Your task to perform on an android device: Search for "razer thresher" on amazon.com, select the first entry, and add it to the cart. Image 0: 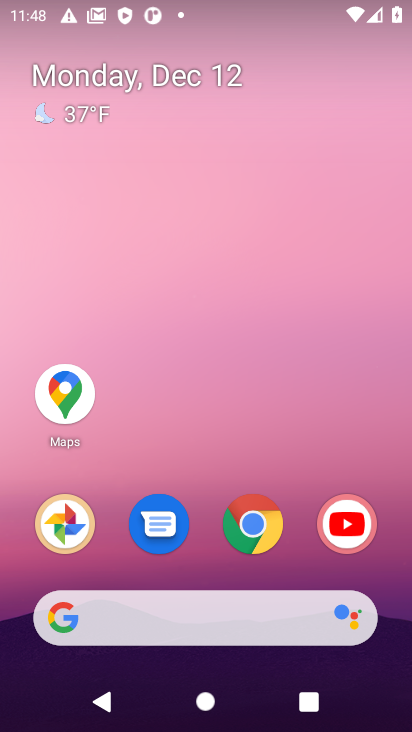
Step 0: click (244, 531)
Your task to perform on an android device: Search for "razer thresher" on amazon.com, select the first entry, and add it to the cart. Image 1: 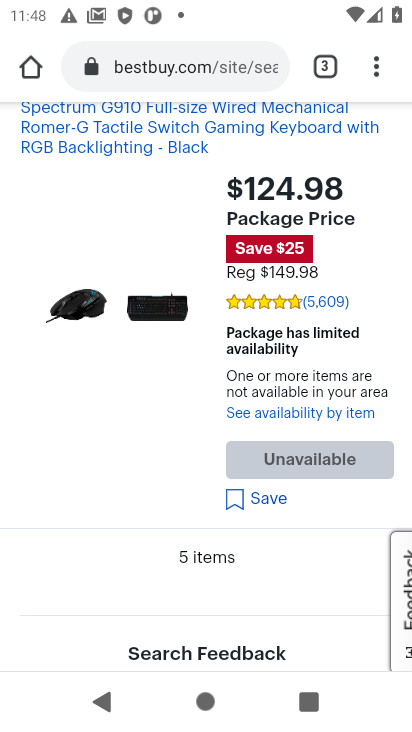
Step 1: click (183, 77)
Your task to perform on an android device: Search for "razer thresher" on amazon.com, select the first entry, and add it to the cart. Image 2: 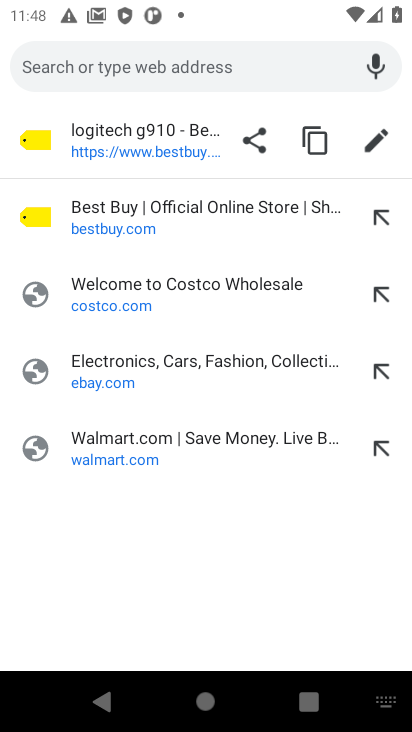
Step 2: type "amazon.com"
Your task to perform on an android device: Search for "razer thresher" on amazon.com, select the first entry, and add it to the cart. Image 3: 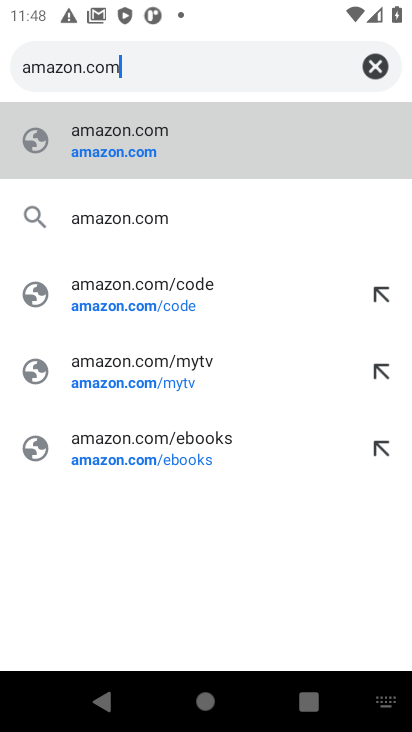
Step 3: click (97, 161)
Your task to perform on an android device: Search for "razer thresher" on amazon.com, select the first entry, and add it to the cart. Image 4: 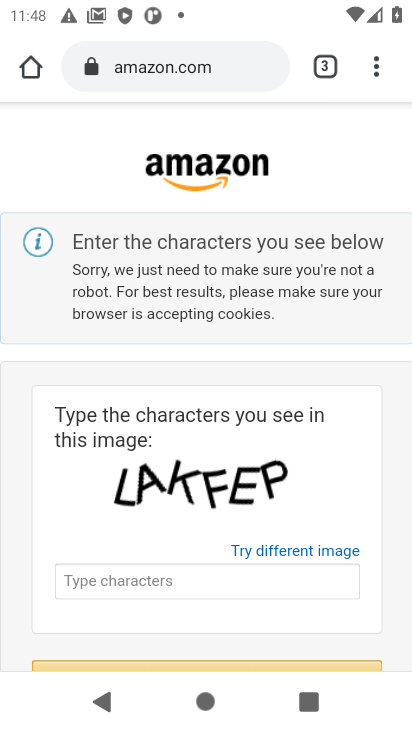
Step 4: click (124, 572)
Your task to perform on an android device: Search for "razer thresher" on amazon.com, select the first entry, and add it to the cart. Image 5: 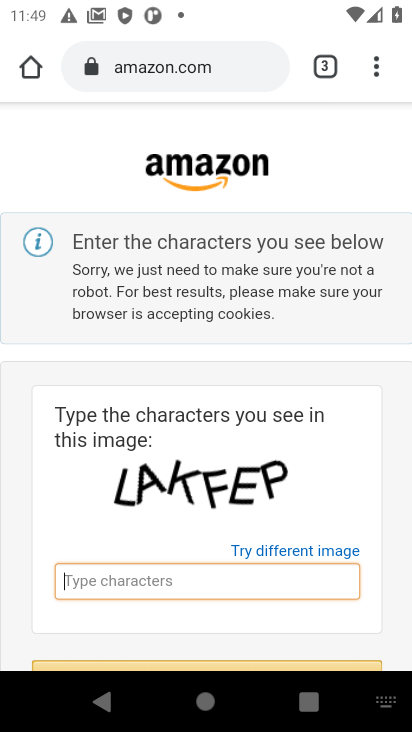
Step 5: type "LAKFEP"
Your task to perform on an android device: Search for "razer thresher" on amazon.com, select the first entry, and add it to the cart. Image 6: 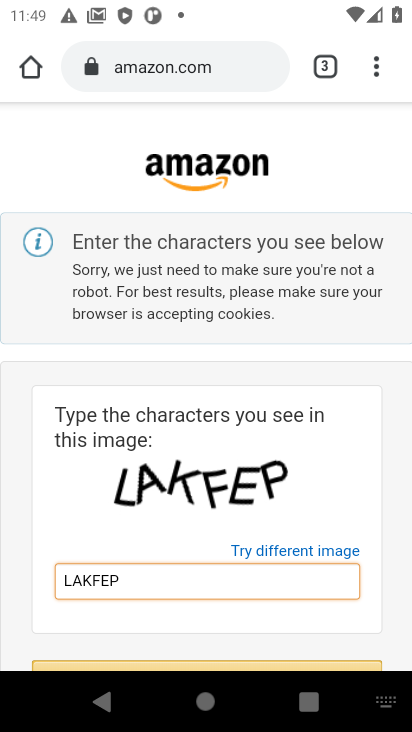
Step 6: drag from (282, 543) to (290, 272)
Your task to perform on an android device: Search for "razer thresher" on amazon.com, select the first entry, and add it to the cart. Image 7: 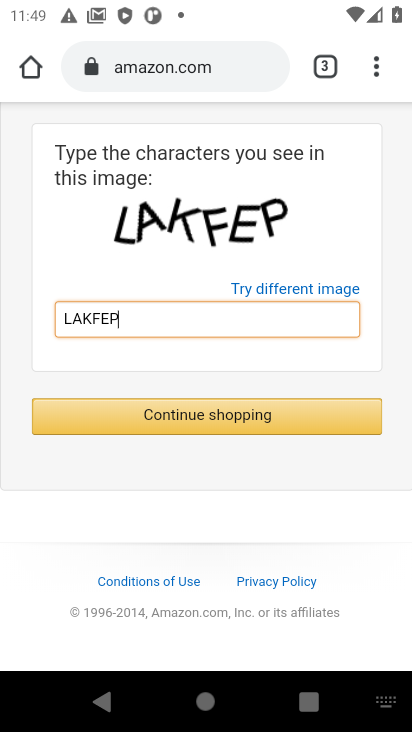
Step 7: click (233, 423)
Your task to perform on an android device: Search for "razer thresher" on amazon.com, select the first entry, and add it to the cart. Image 8: 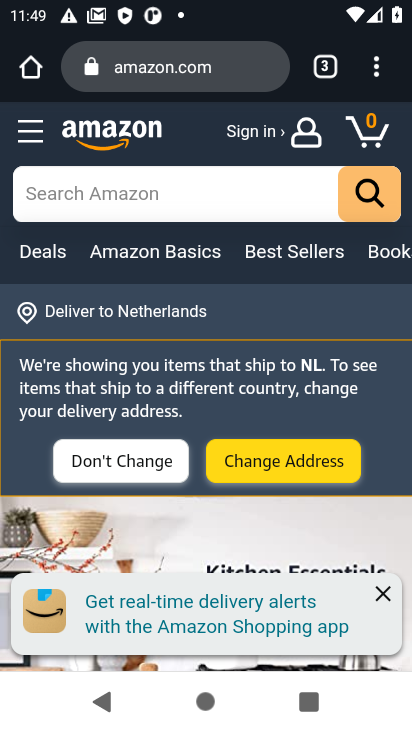
Step 8: click (34, 199)
Your task to perform on an android device: Search for "razer thresher" on amazon.com, select the first entry, and add it to the cart. Image 9: 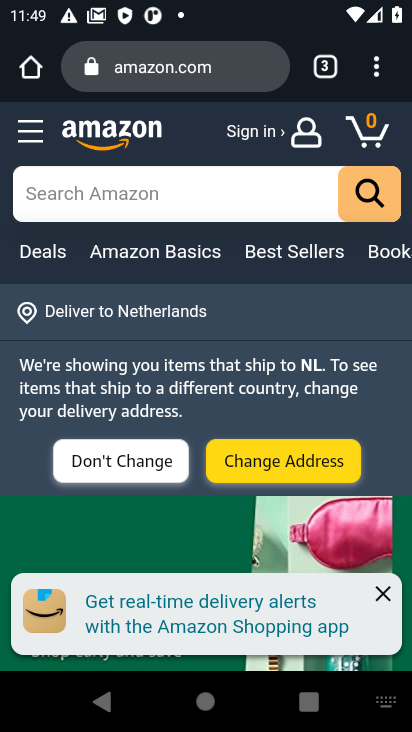
Step 9: type "razer thresher"
Your task to perform on an android device: Search for "razer thresher" on amazon.com, select the first entry, and add it to the cart. Image 10: 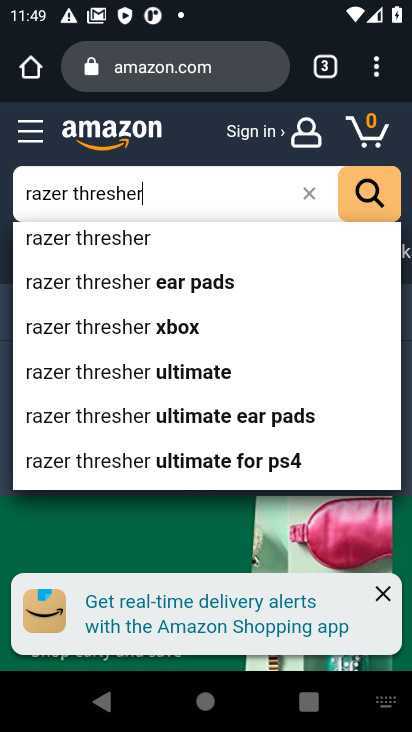
Step 10: click (105, 243)
Your task to perform on an android device: Search for "razer thresher" on amazon.com, select the first entry, and add it to the cart. Image 11: 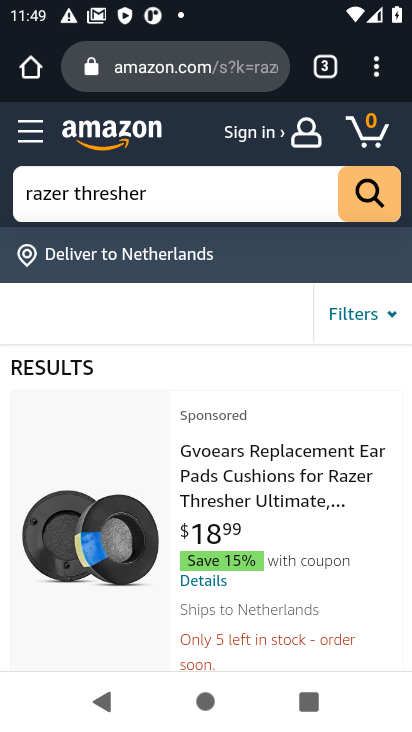
Step 11: drag from (293, 591) to (290, 455)
Your task to perform on an android device: Search for "razer thresher" on amazon.com, select the first entry, and add it to the cart. Image 12: 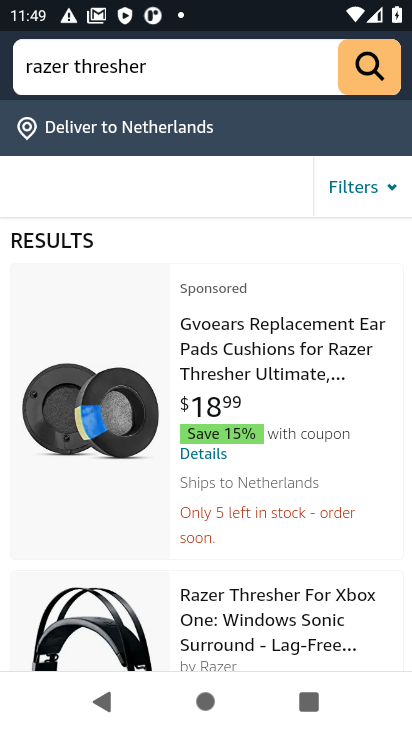
Step 12: click (226, 366)
Your task to perform on an android device: Search for "razer thresher" on amazon.com, select the first entry, and add it to the cart. Image 13: 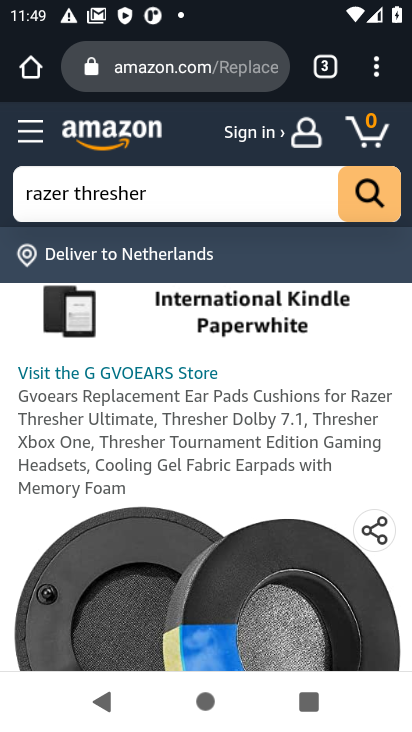
Step 13: drag from (207, 485) to (196, 234)
Your task to perform on an android device: Search for "razer thresher" on amazon.com, select the first entry, and add it to the cart. Image 14: 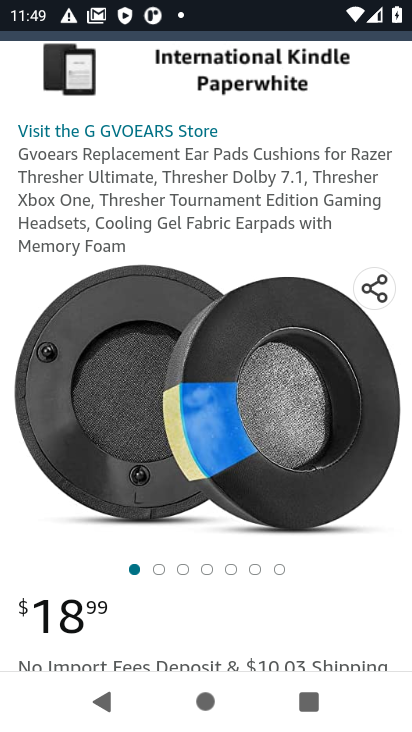
Step 14: drag from (186, 487) to (176, 196)
Your task to perform on an android device: Search for "razer thresher" on amazon.com, select the first entry, and add it to the cart. Image 15: 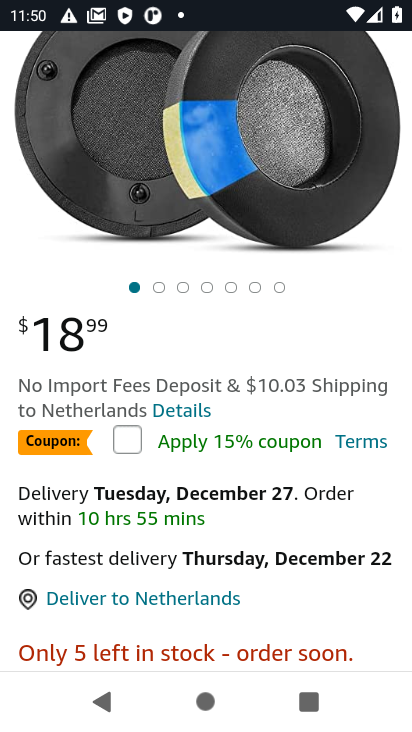
Step 15: drag from (172, 484) to (163, 177)
Your task to perform on an android device: Search for "razer thresher" on amazon.com, select the first entry, and add it to the cart. Image 16: 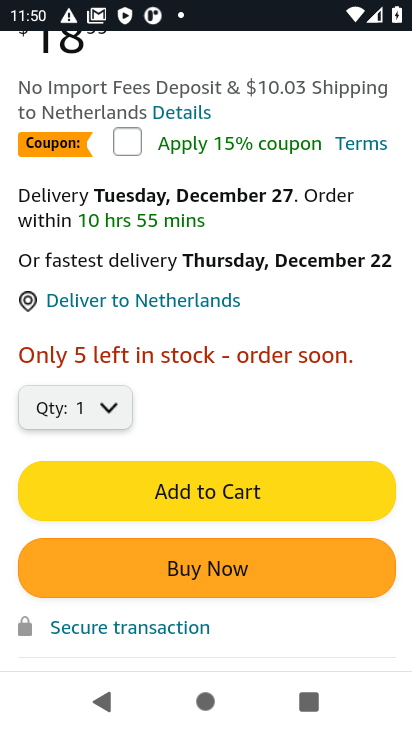
Step 16: click (200, 508)
Your task to perform on an android device: Search for "razer thresher" on amazon.com, select the first entry, and add it to the cart. Image 17: 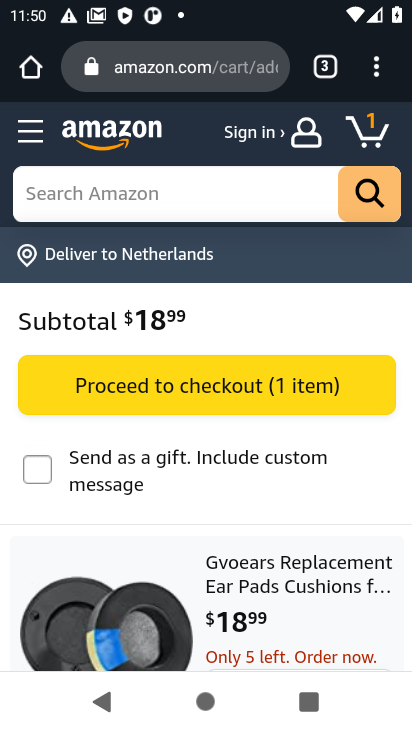
Step 17: task complete